Your task to perform on an android device: Go to network settings Image 0: 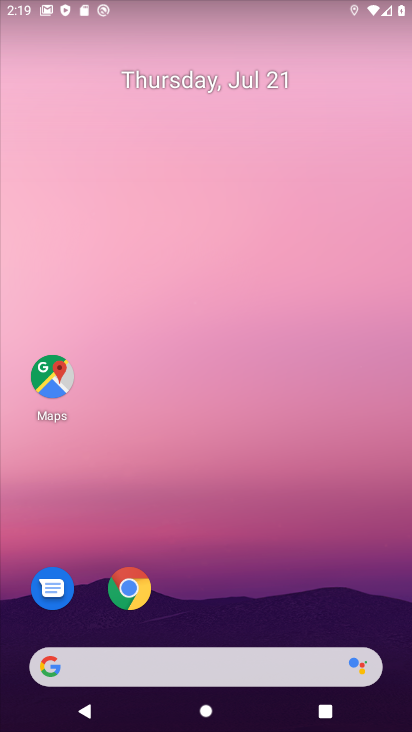
Step 0: press home button
Your task to perform on an android device: Go to network settings Image 1: 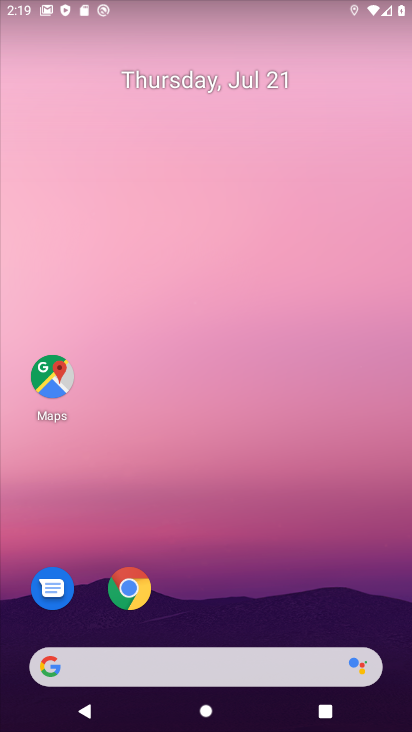
Step 1: drag from (244, 659) to (230, 87)
Your task to perform on an android device: Go to network settings Image 2: 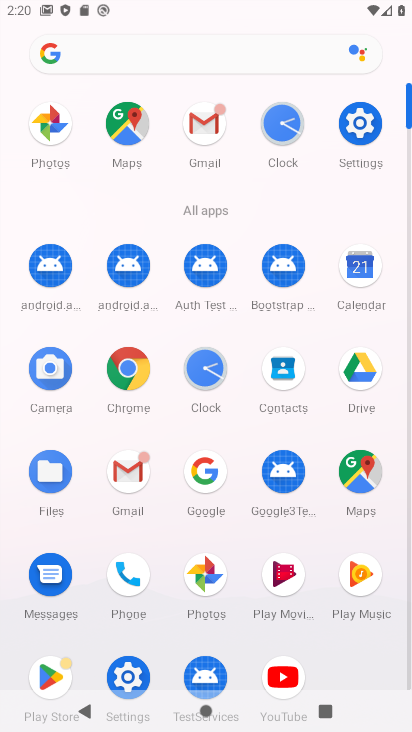
Step 2: click (360, 130)
Your task to perform on an android device: Go to network settings Image 3: 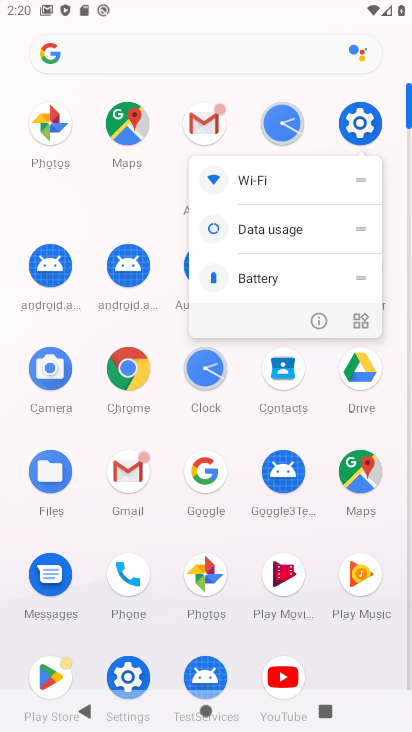
Step 3: drag from (191, 592) to (184, 383)
Your task to perform on an android device: Go to network settings Image 4: 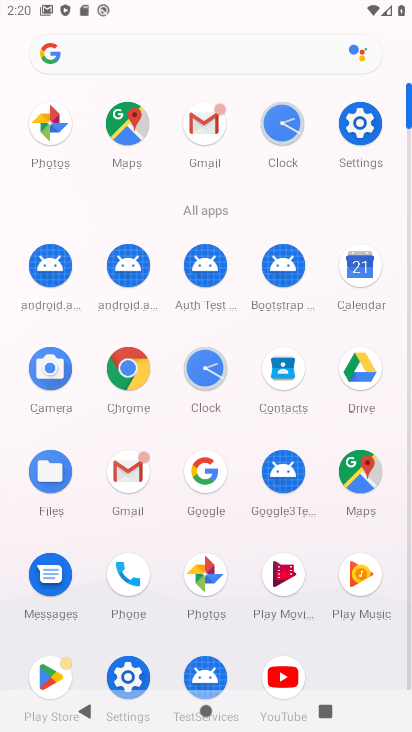
Step 4: drag from (181, 440) to (228, 142)
Your task to perform on an android device: Go to network settings Image 5: 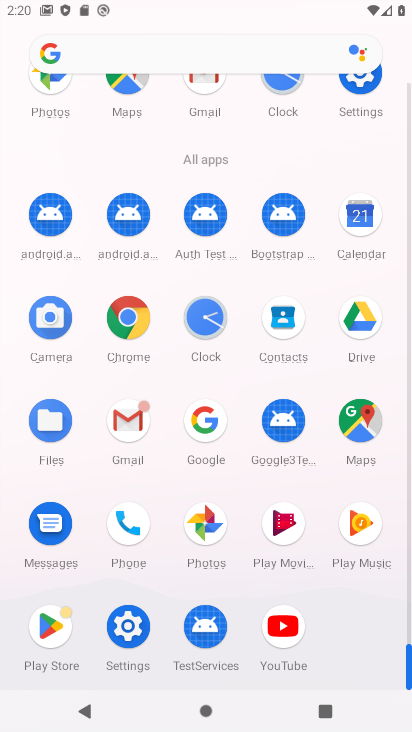
Step 5: click (139, 640)
Your task to perform on an android device: Go to network settings Image 6: 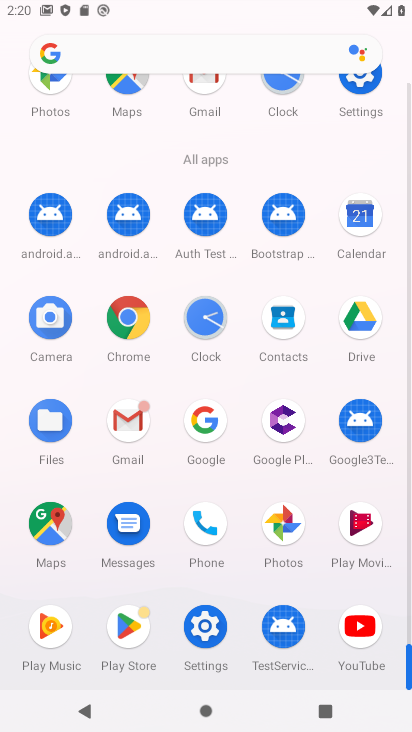
Step 6: click (194, 632)
Your task to perform on an android device: Go to network settings Image 7: 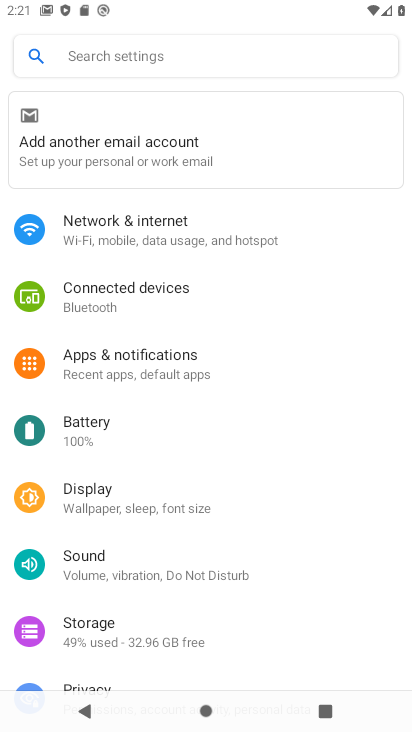
Step 7: click (165, 376)
Your task to perform on an android device: Go to network settings Image 8: 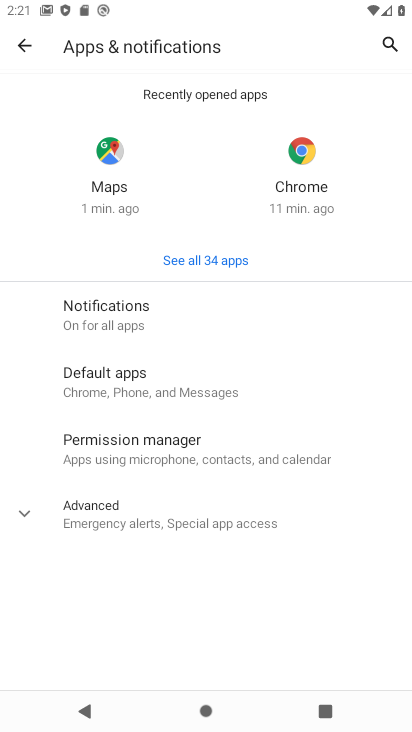
Step 8: task complete